Your task to perform on an android device: Show me the alarms in the clock app Image 0: 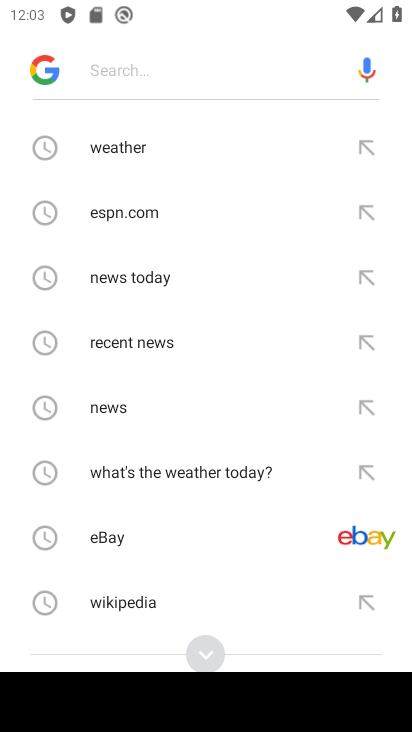
Step 0: press home button
Your task to perform on an android device: Show me the alarms in the clock app Image 1: 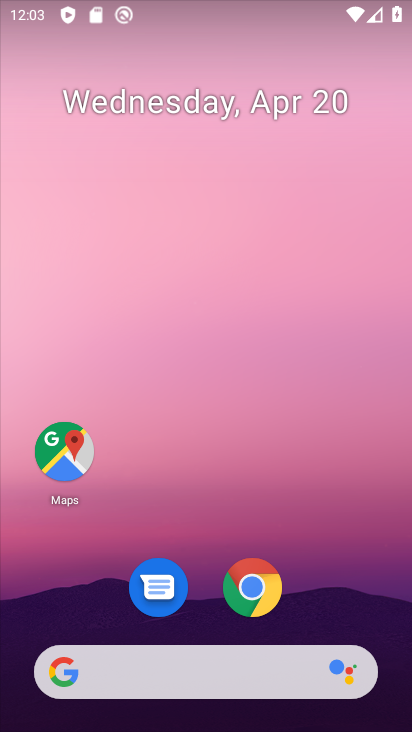
Step 1: drag from (212, 622) to (259, 192)
Your task to perform on an android device: Show me the alarms in the clock app Image 2: 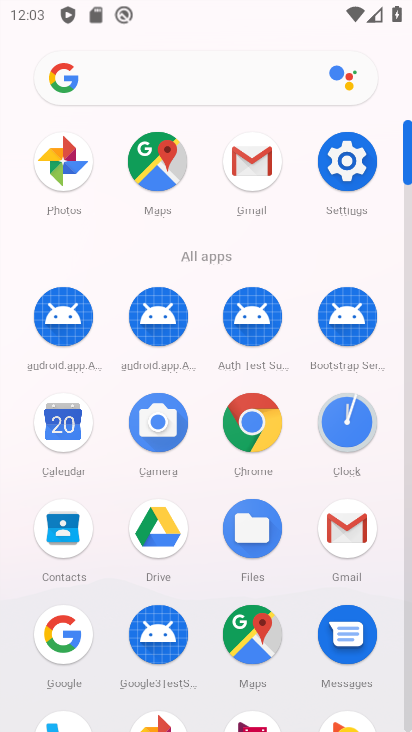
Step 2: click (352, 428)
Your task to perform on an android device: Show me the alarms in the clock app Image 3: 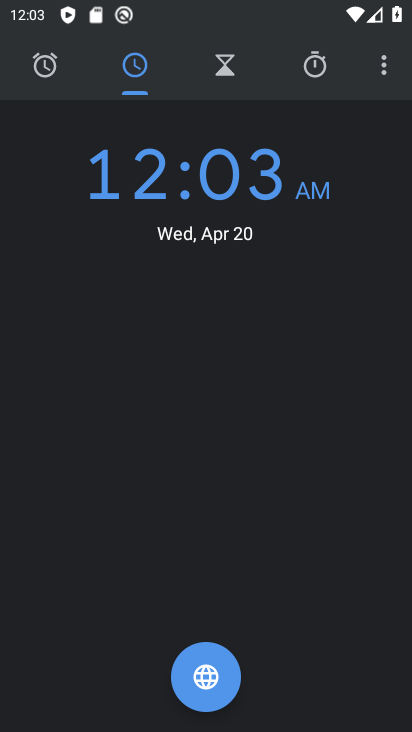
Step 3: click (44, 76)
Your task to perform on an android device: Show me the alarms in the clock app Image 4: 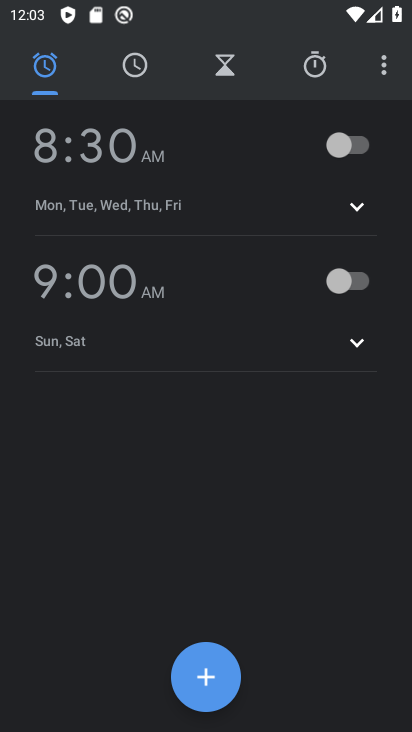
Step 4: task complete